Your task to perform on an android device: open app "McDonald's" Image 0: 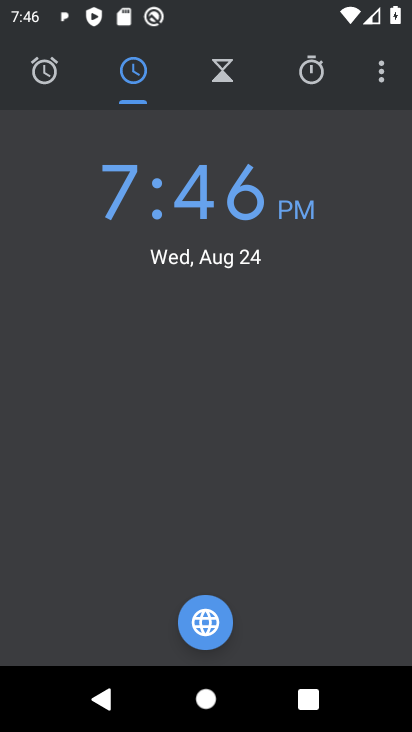
Step 0: press home button
Your task to perform on an android device: open app "McDonald's" Image 1: 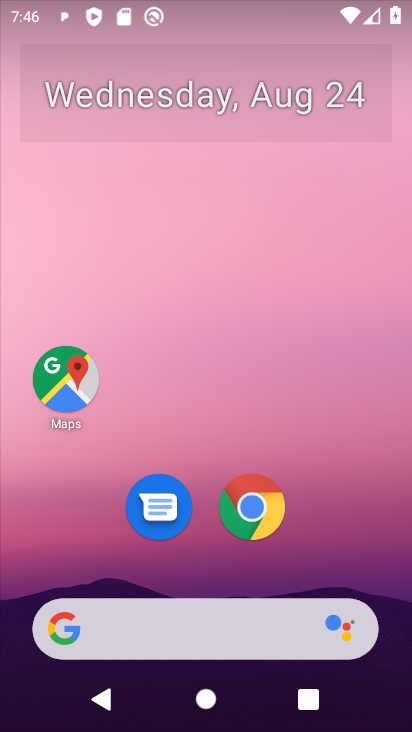
Step 1: drag from (374, 511) to (387, 98)
Your task to perform on an android device: open app "McDonald's" Image 2: 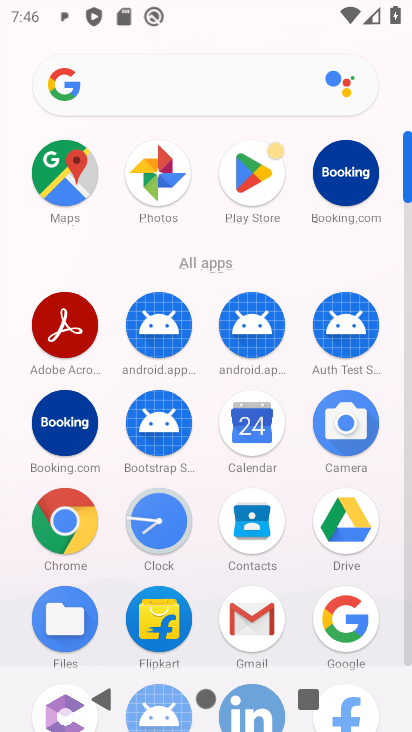
Step 2: click (256, 182)
Your task to perform on an android device: open app "McDonald's" Image 3: 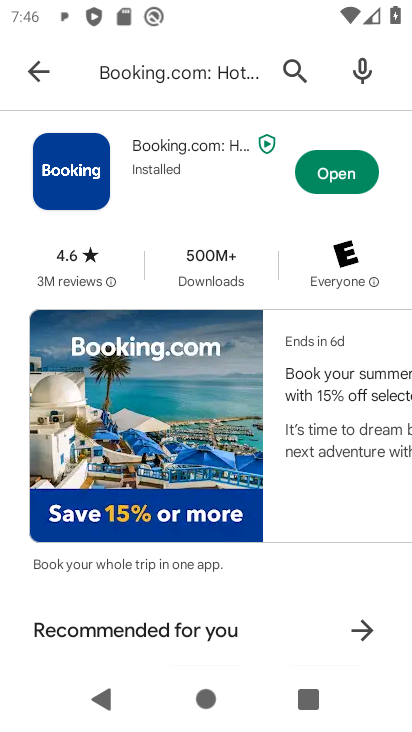
Step 3: press back button
Your task to perform on an android device: open app "McDonald's" Image 4: 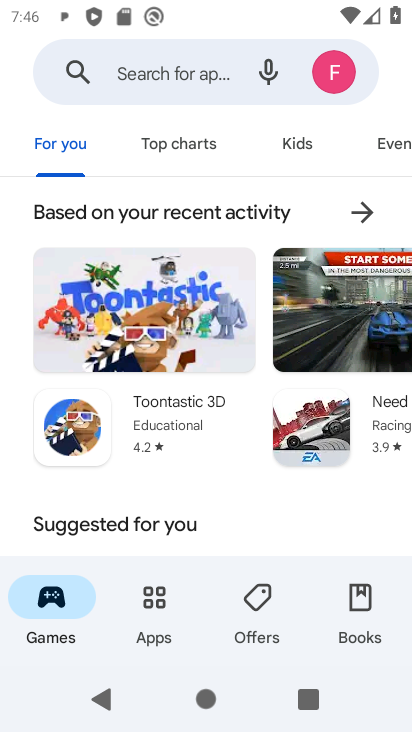
Step 4: click (212, 83)
Your task to perform on an android device: open app "McDonald's" Image 5: 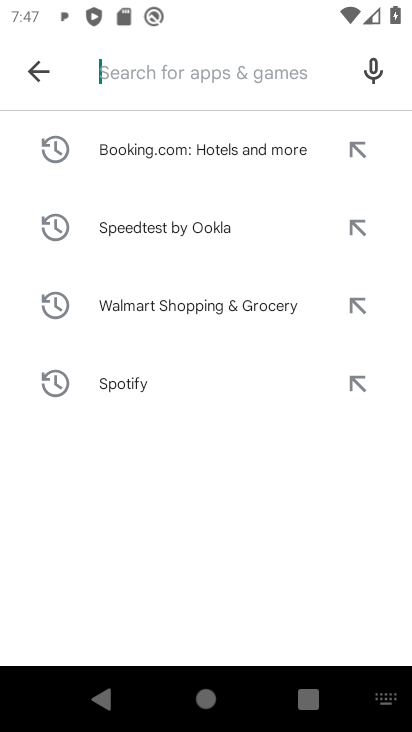
Step 5: type "McDonald's"
Your task to perform on an android device: open app "McDonald's" Image 6: 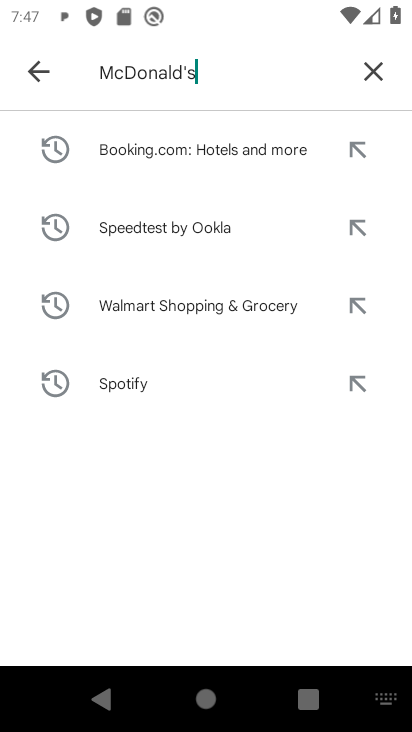
Step 6: press enter
Your task to perform on an android device: open app "McDonald's" Image 7: 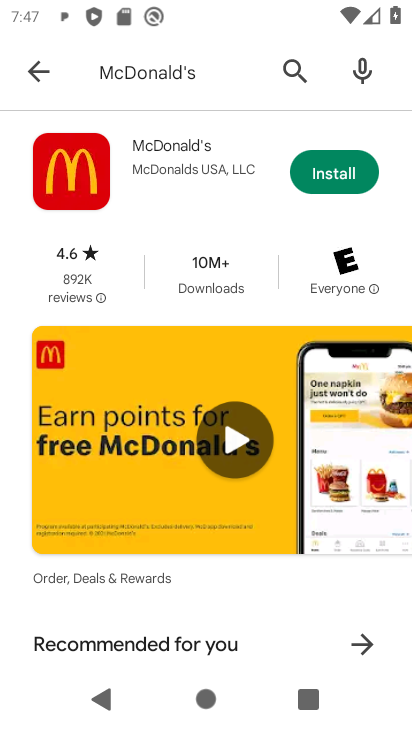
Step 7: task complete